Your task to perform on an android device: turn on notifications settings in the gmail app Image 0: 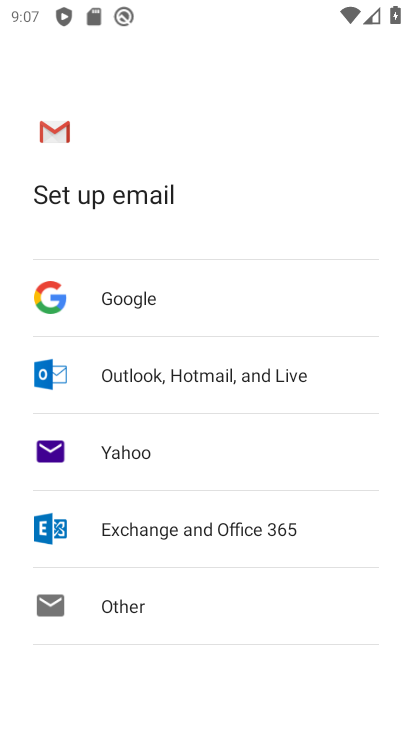
Step 0: press home button
Your task to perform on an android device: turn on notifications settings in the gmail app Image 1: 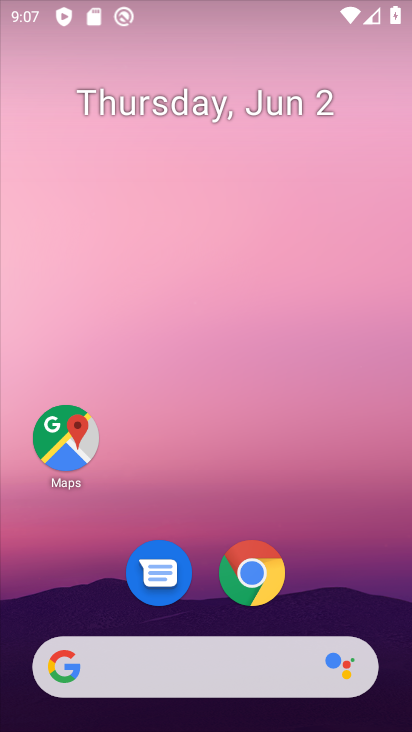
Step 1: drag from (357, 546) to (299, 114)
Your task to perform on an android device: turn on notifications settings in the gmail app Image 2: 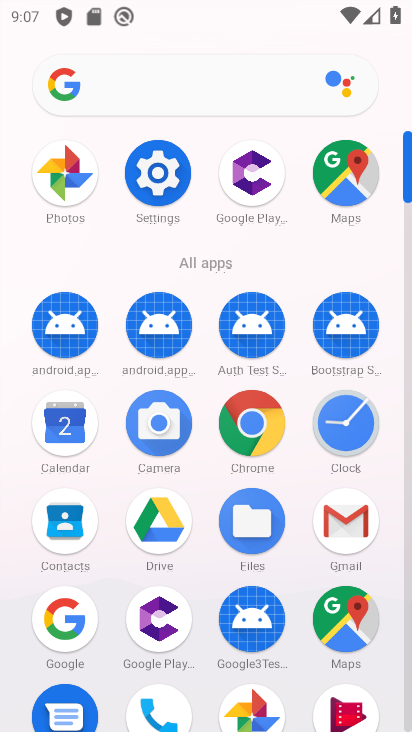
Step 2: click (329, 506)
Your task to perform on an android device: turn on notifications settings in the gmail app Image 3: 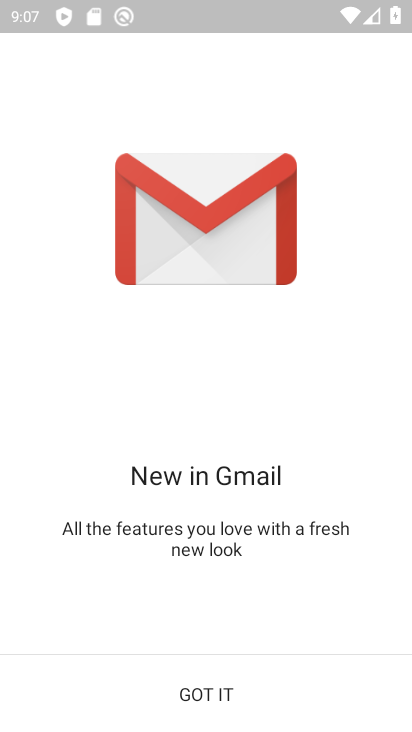
Step 3: click (224, 677)
Your task to perform on an android device: turn on notifications settings in the gmail app Image 4: 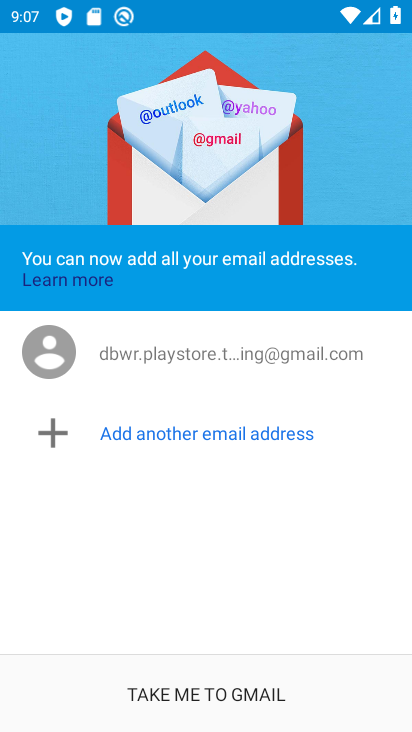
Step 4: click (254, 704)
Your task to perform on an android device: turn on notifications settings in the gmail app Image 5: 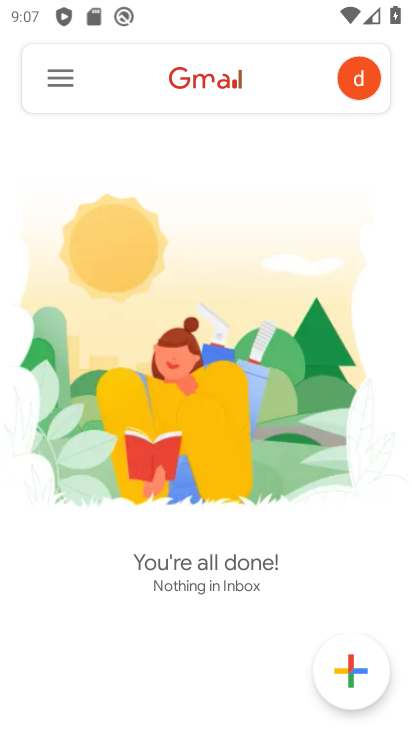
Step 5: click (46, 72)
Your task to perform on an android device: turn on notifications settings in the gmail app Image 6: 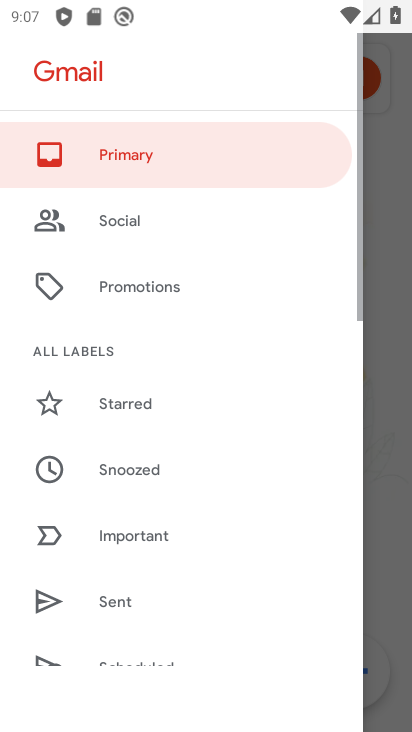
Step 6: drag from (131, 625) to (179, 208)
Your task to perform on an android device: turn on notifications settings in the gmail app Image 7: 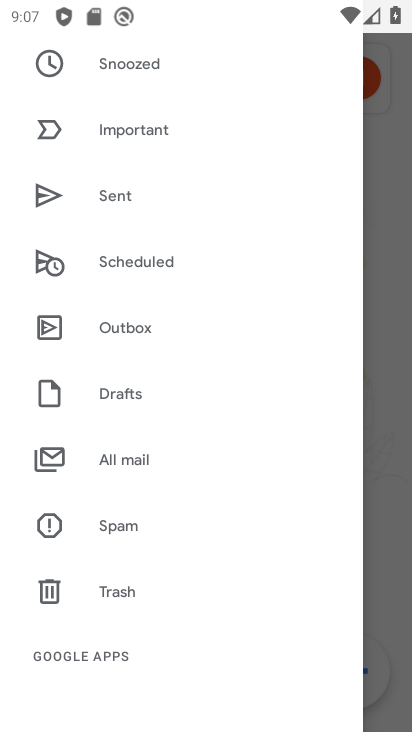
Step 7: drag from (119, 572) to (178, 180)
Your task to perform on an android device: turn on notifications settings in the gmail app Image 8: 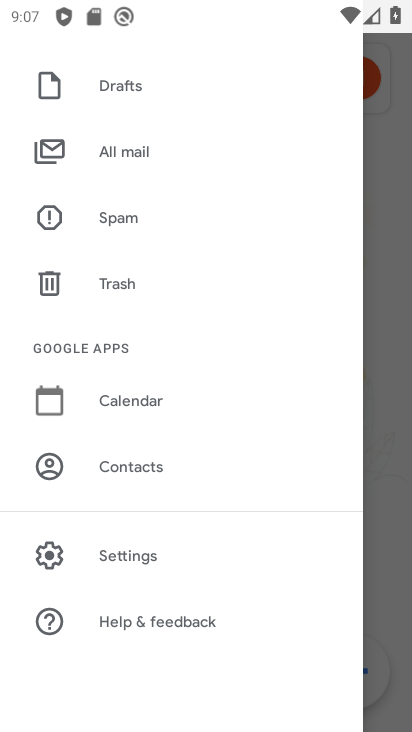
Step 8: click (111, 559)
Your task to perform on an android device: turn on notifications settings in the gmail app Image 9: 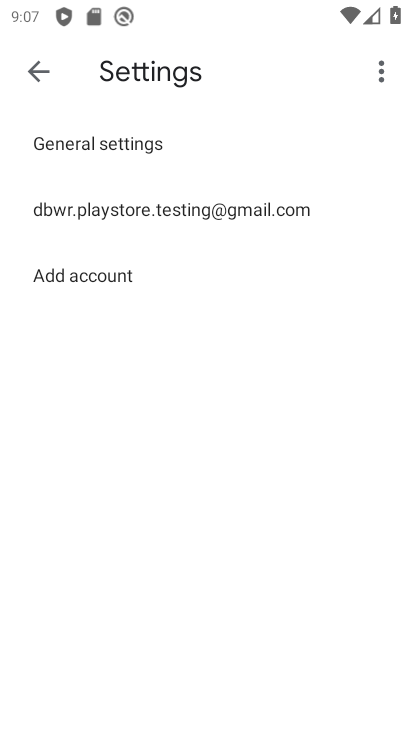
Step 9: click (175, 225)
Your task to perform on an android device: turn on notifications settings in the gmail app Image 10: 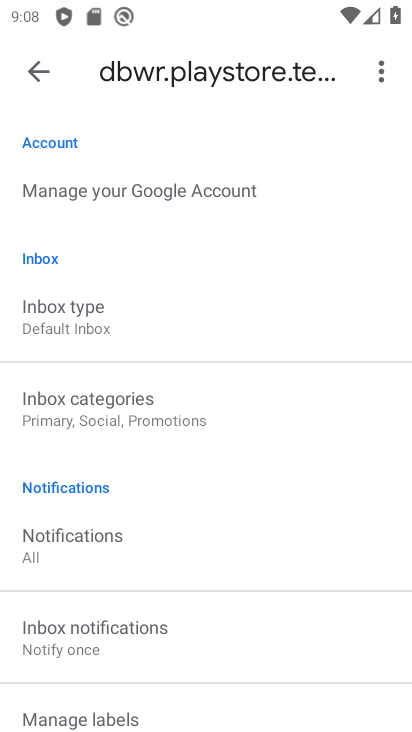
Step 10: drag from (224, 665) to (229, 361)
Your task to perform on an android device: turn on notifications settings in the gmail app Image 11: 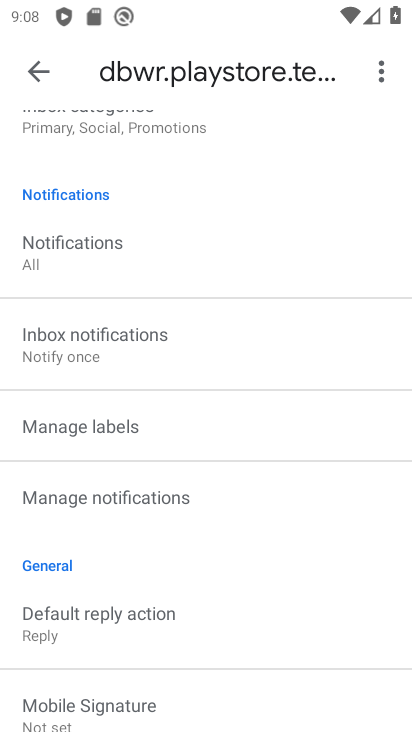
Step 11: click (133, 498)
Your task to perform on an android device: turn on notifications settings in the gmail app Image 12: 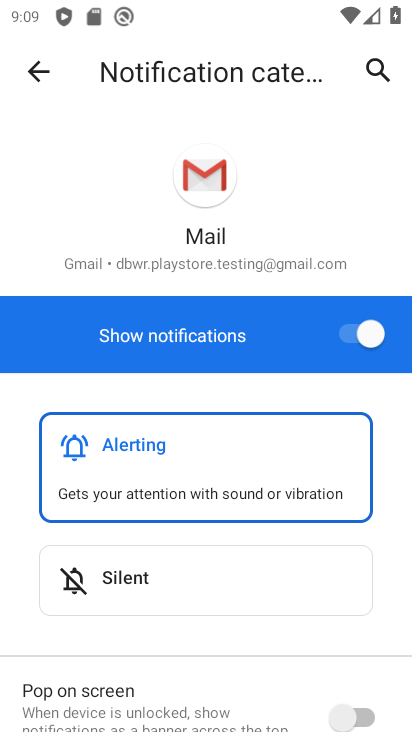
Step 12: task complete